Your task to perform on an android device: check out phone information Image 0: 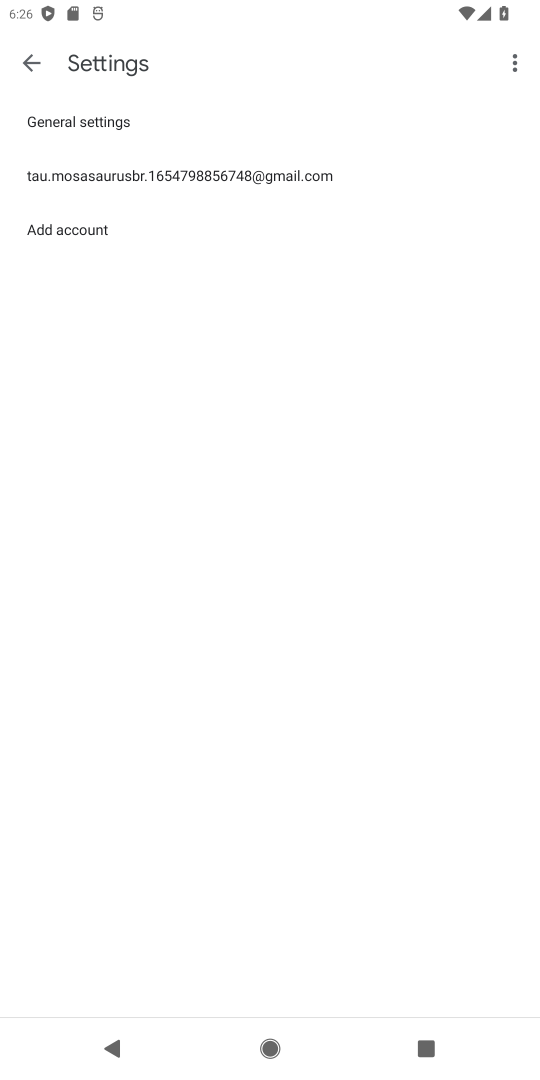
Step 0: press home button
Your task to perform on an android device: check out phone information Image 1: 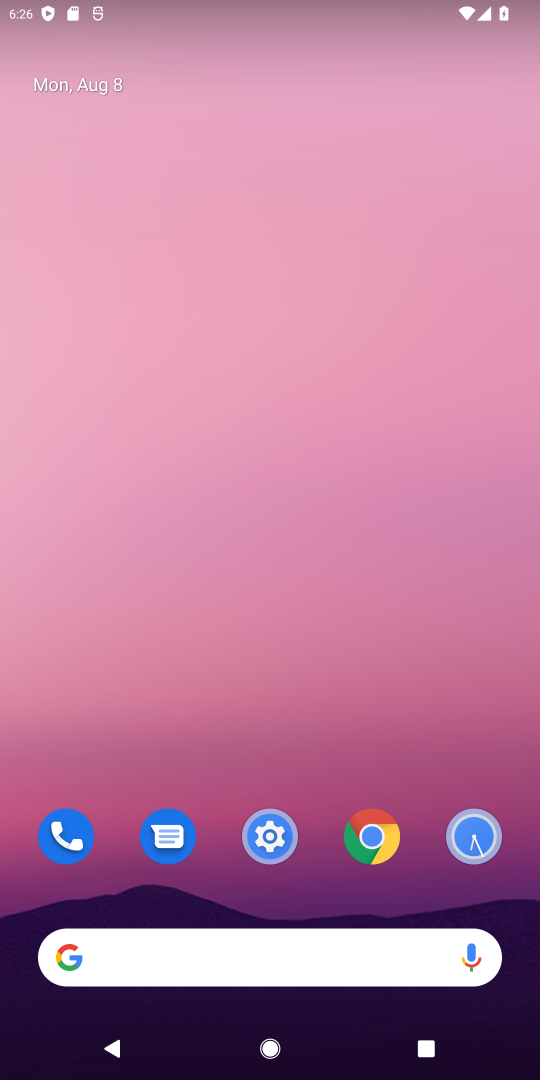
Step 1: drag from (351, 738) to (338, 83)
Your task to perform on an android device: check out phone information Image 2: 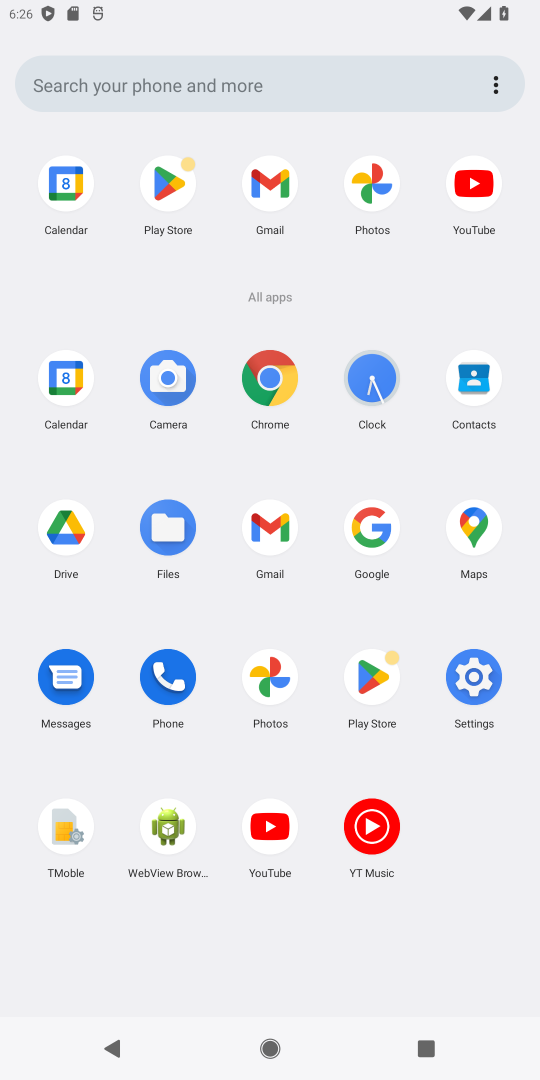
Step 2: click (472, 689)
Your task to perform on an android device: check out phone information Image 3: 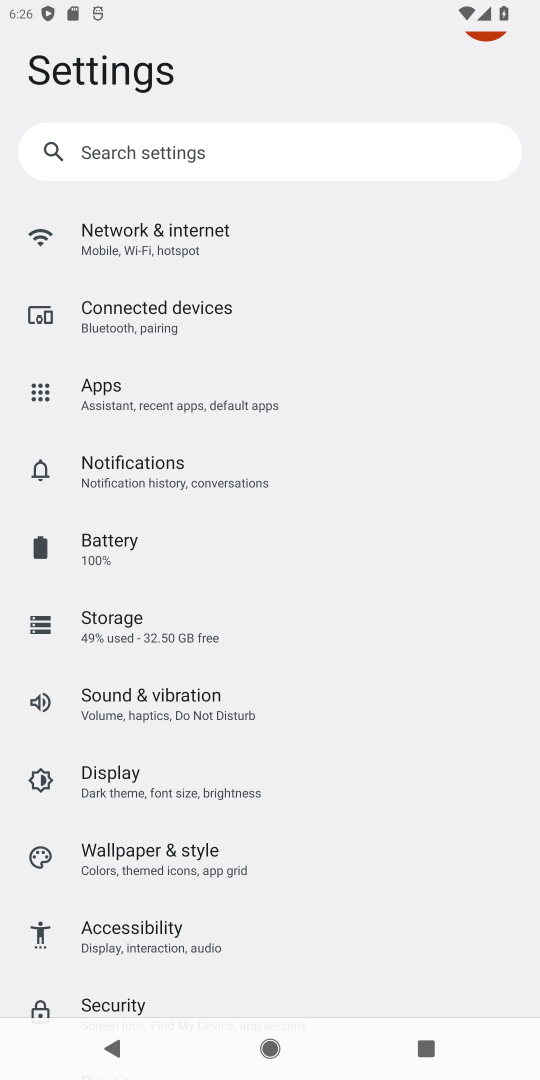
Step 3: drag from (206, 899) to (263, 207)
Your task to perform on an android device: check out phone information Image 4: 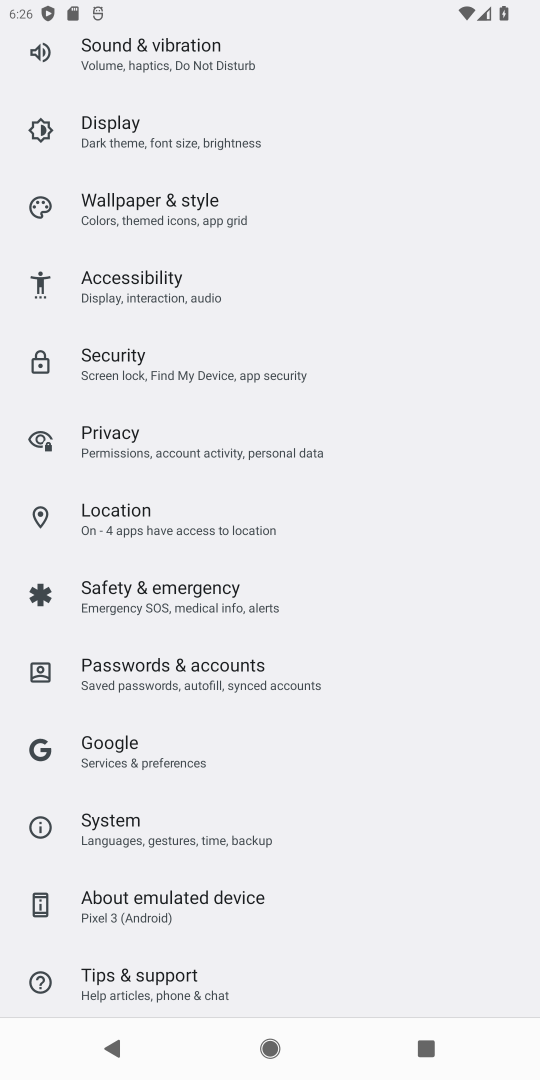
Step 4: drag from (236, 810) to (227, 255)
Your task to perform on an android device: check out phone information Image 5: 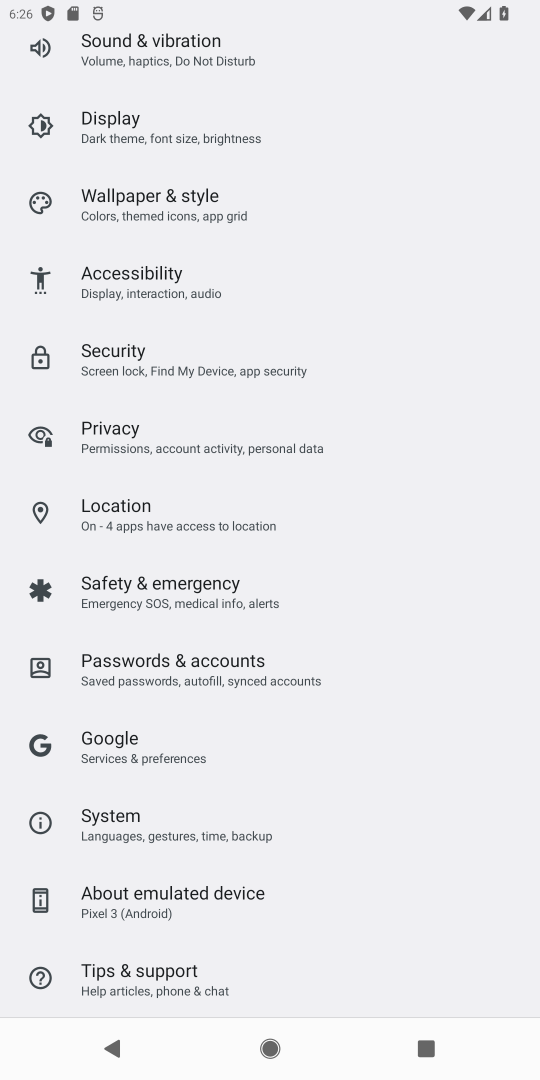
Step 5: click (271, 883)
Your task to perform on an android device: check out phone information Image 6: 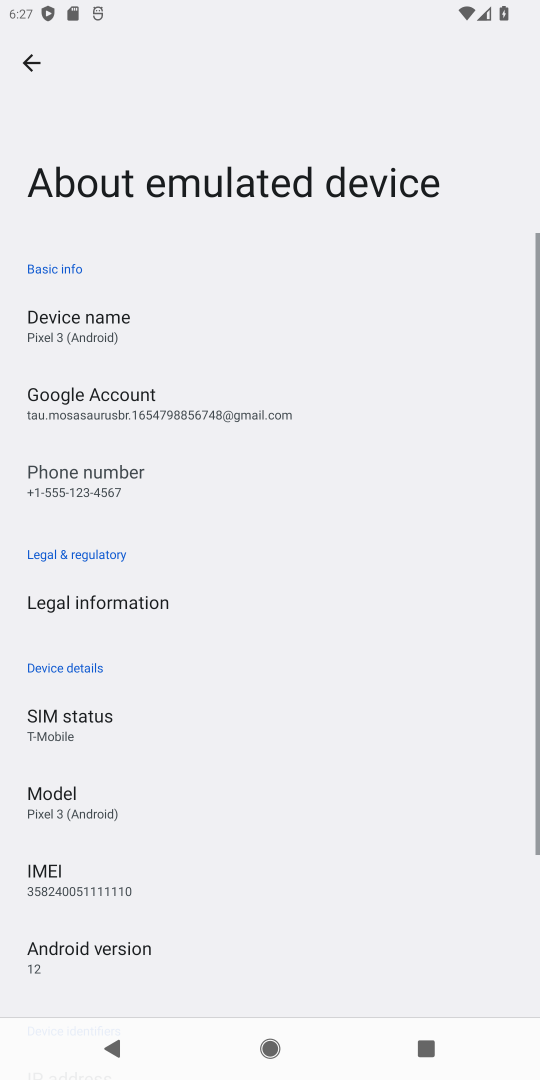
Step 6: task complete